Your task to perform on an android device: delete browsing data in the chrome app Image 0: 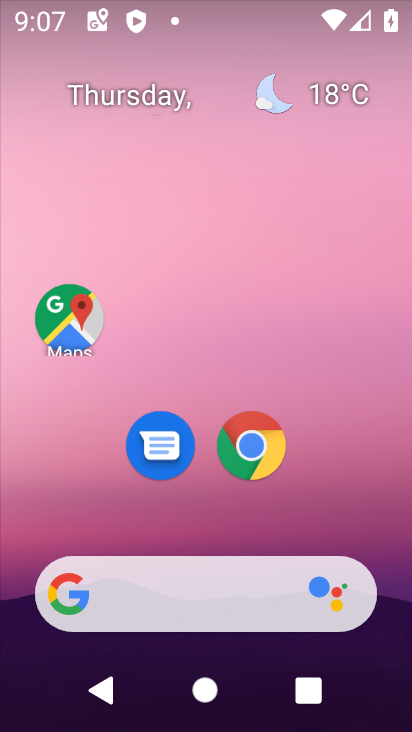
Step 0: click (239, 447)
Your task to perform on an android device: delete browsing data in the chrome app Image 1: 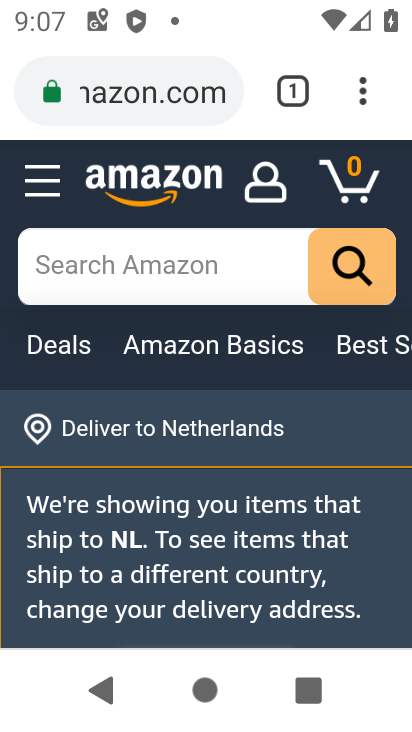
Step 1: click (359, 97)
Your task to perform on an android device: delete browsing data in the chrome app Image 2: 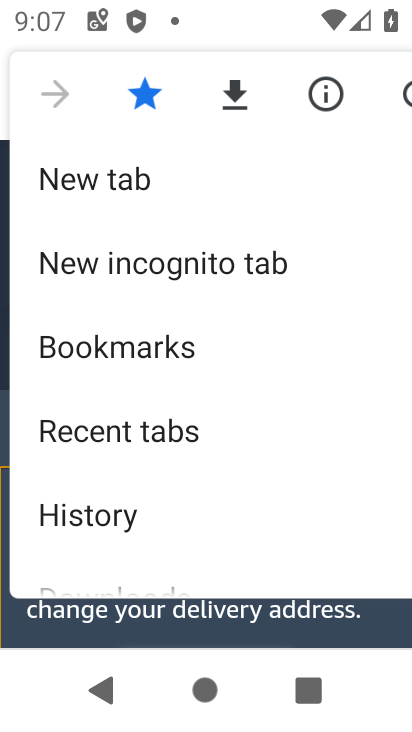
Step 2: click (157, 514)
Your task to perform on an android device: delete browsing data in the chrome app Image 3: 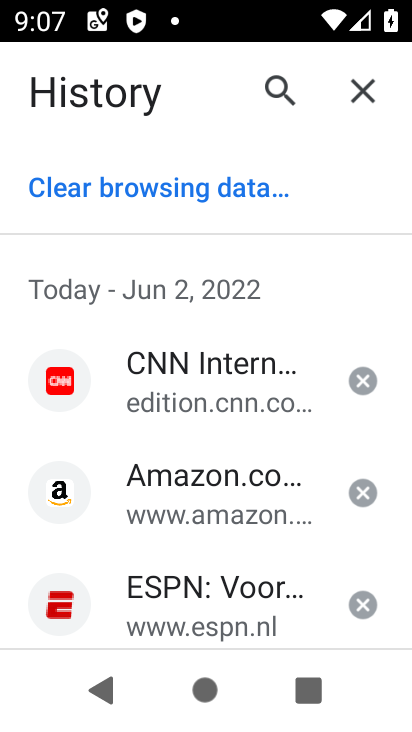
Step 3: click (207, 195)
Your task to perform on an android device: delete browsing data in the chrome app Image 4: 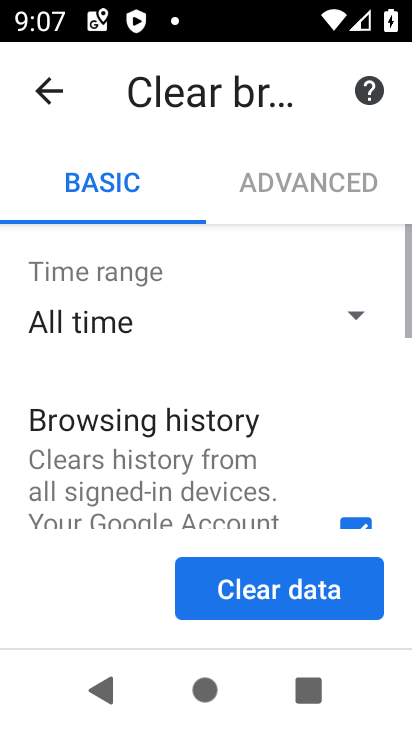
Step 4: drag from (292, 462) to (269, 261)
Your task to perform on an android device: delete browsing data in the chrome app Image 5: 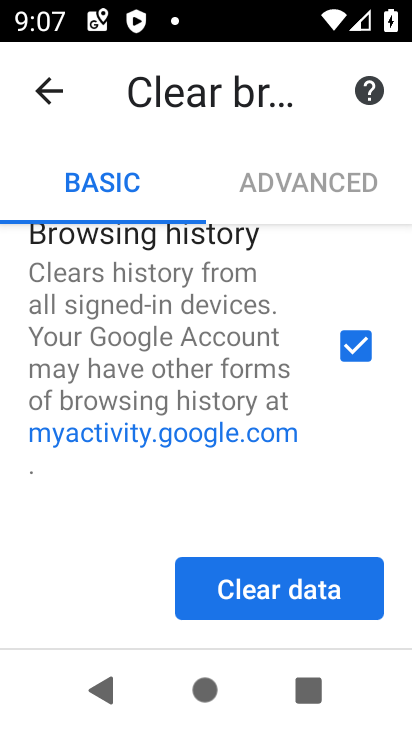
Step 5: click (329, 578)
Your task to perform on an android device: delete browsing data in the chrome app Image 6: 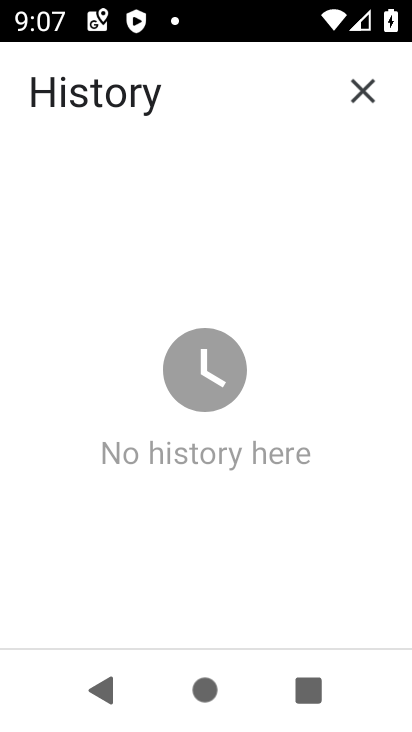
Step 6: task complete